Your task to perform on an android device: What is the news today? Image 0: 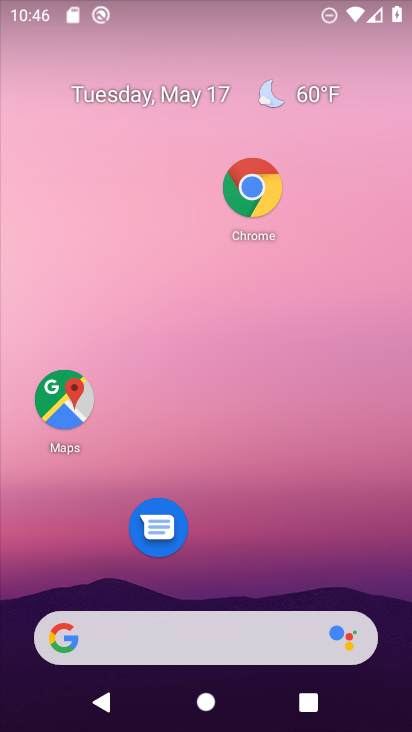
Step 0: click (214, 652)
Your task to perform on an android device: What is the news today? Image 1: 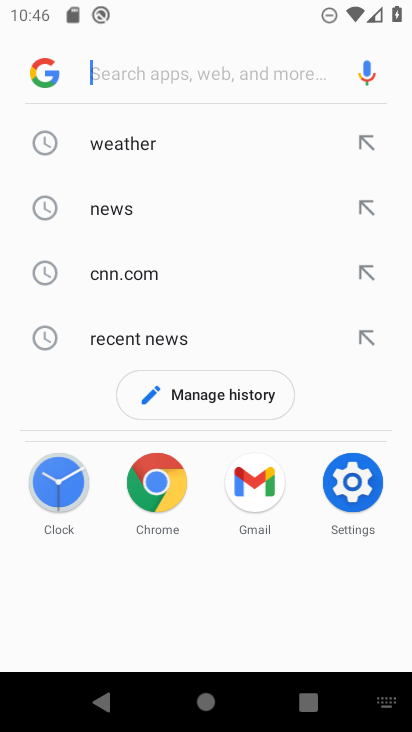
Step 1: click (153, 145)
Your task to perform on an android device: What is the news today? Image 2: 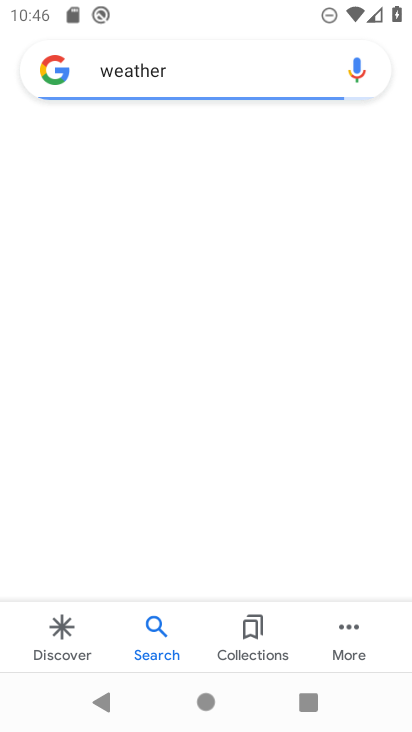
Step 2: click (91, 689)
Your task to perform on an android device: What is the news today? Image 3: 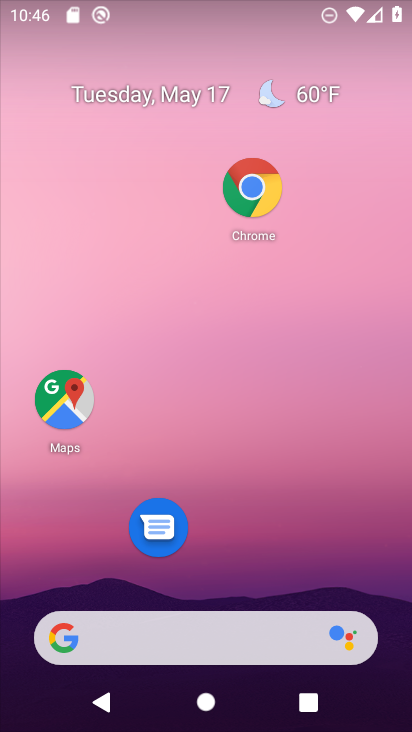
Step 3: click (237, 626)
Your task to perform on an android device: What is the news today? Image 4: 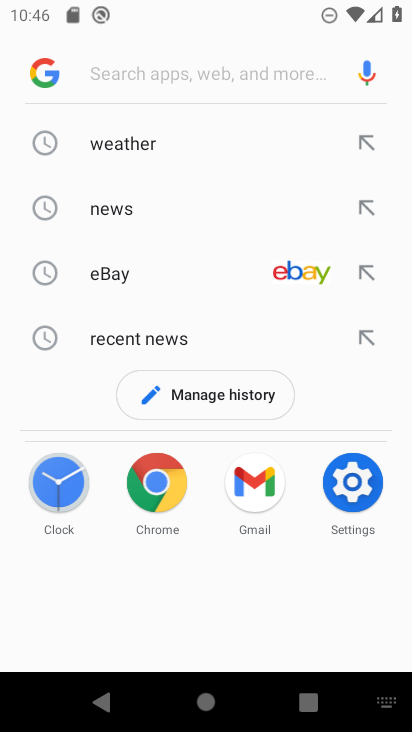
Step 4: click (130, 212)
Your task to perform on an android device: What is the news today? Image 5: 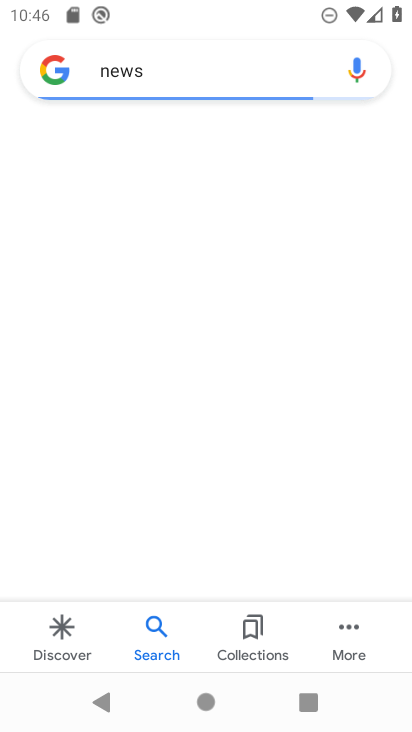
Step 5: task complete